Your task to perform on an android device: Clear the cart on bestbuy. Image 0: 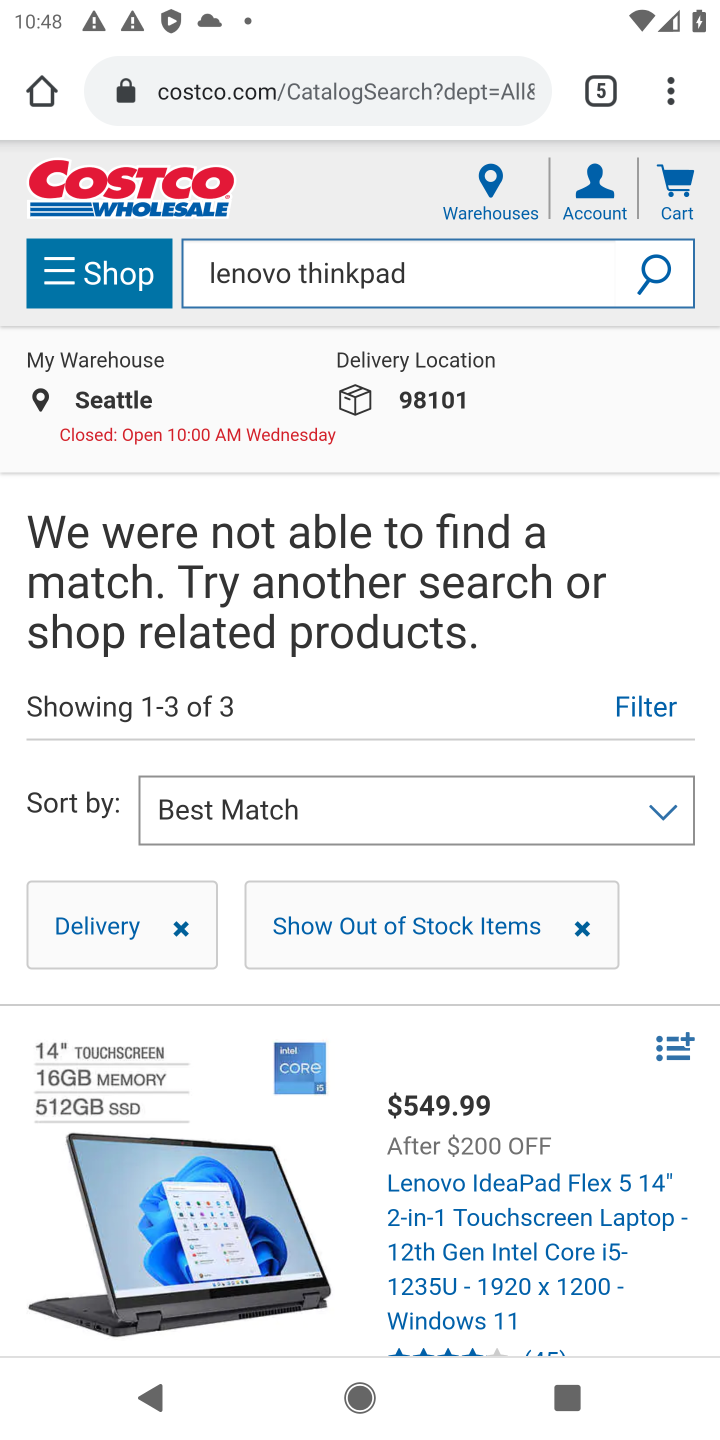
Step 0: click (603, 96)
Your task to perform on an android device: Clear the cart on bestbuy. Image 1: 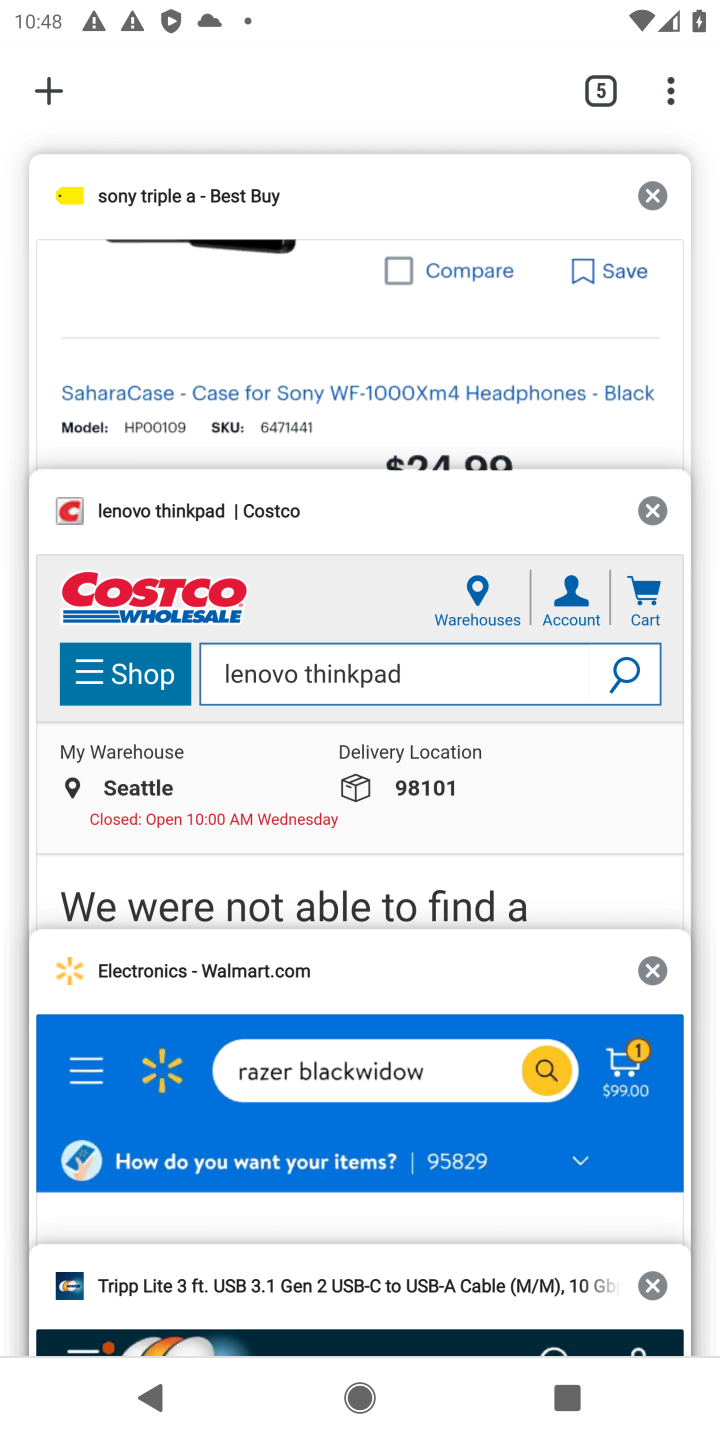
Step 1: click (364, 262)
Your task to perform on an android device: Clear the cart on bestbuy. Image 2: 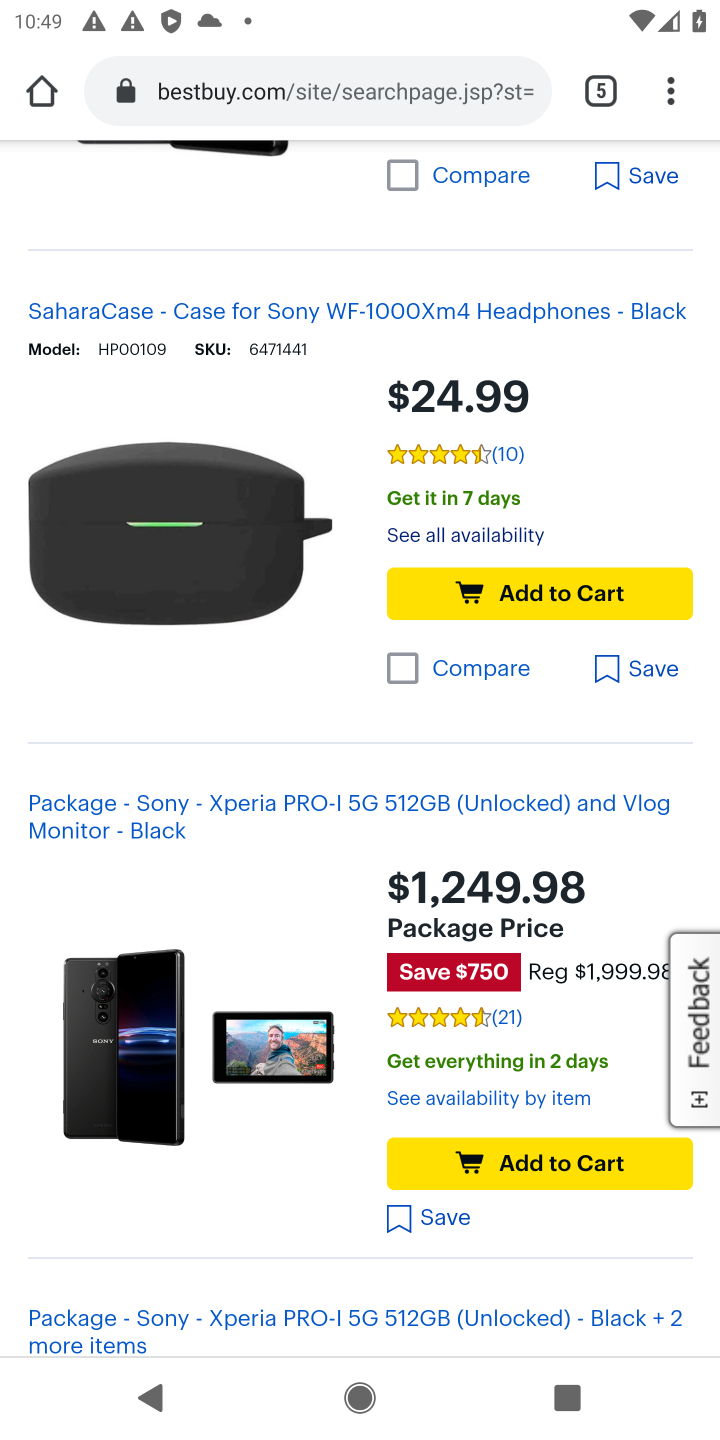
Step 2: drag from (325, 264) to (146, 1435)
Your task to perform on an android device: Clear the cart on bestbuy. Image 3: 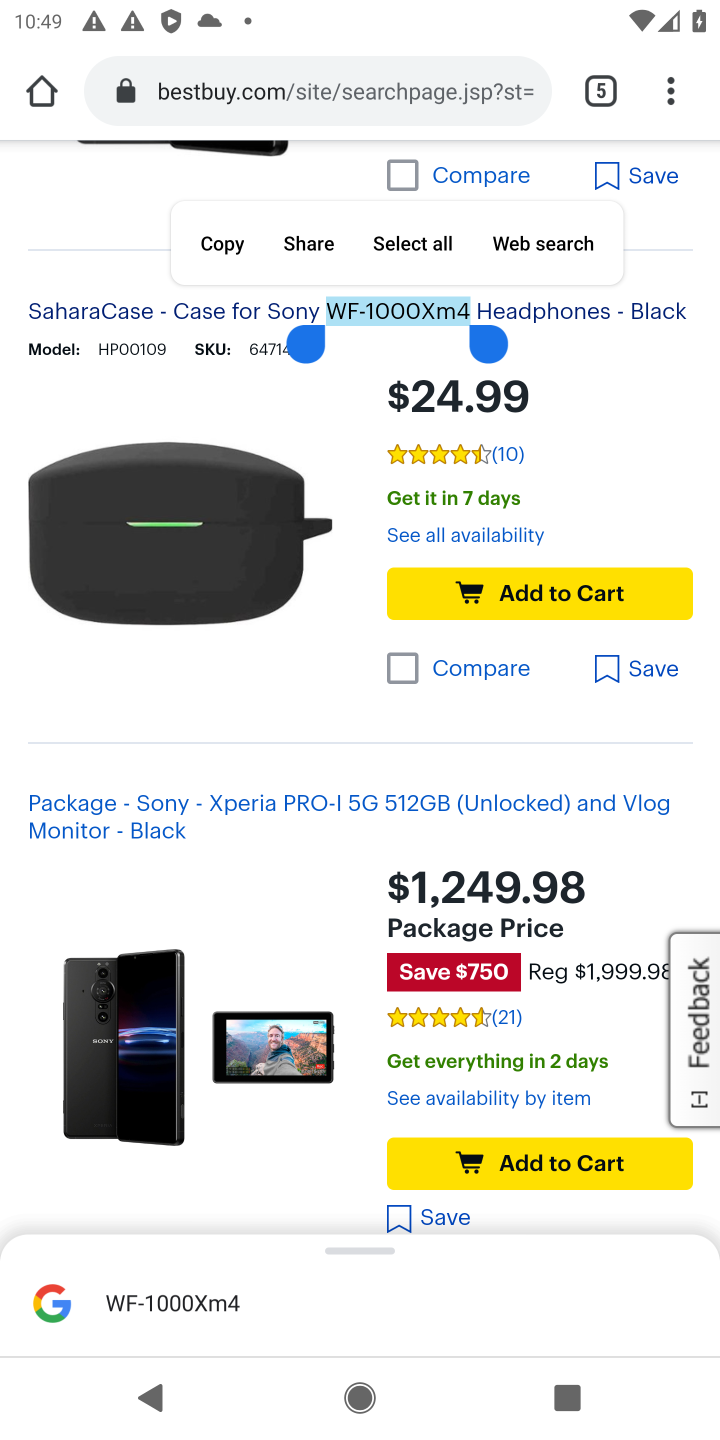
Step 3: drag from (206, 199) to (271, 1313)
Your task to perform on an android device: Clear the cart on bestbuy. Image 4: 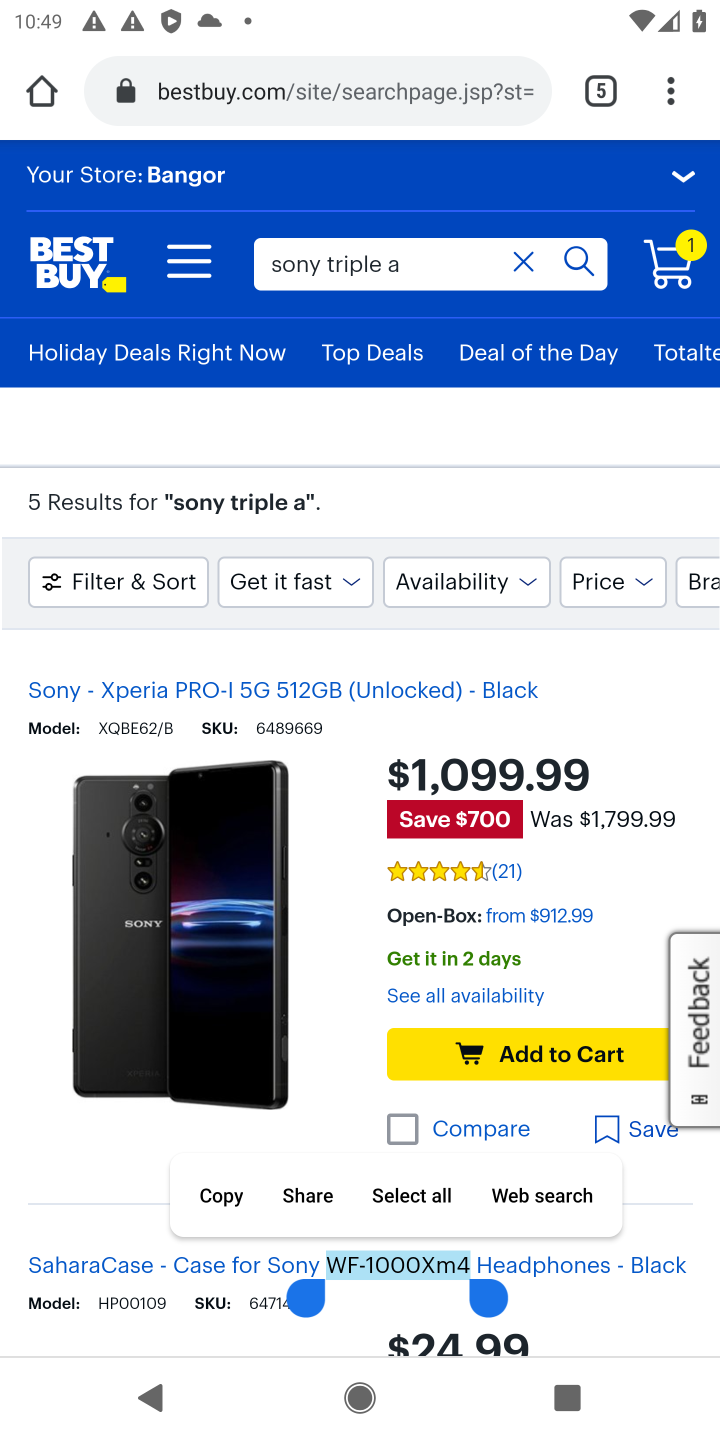
Step 4: click (680, 262)
Your task to perform on an android device: Clear the cart on bestbuy. Image 5: 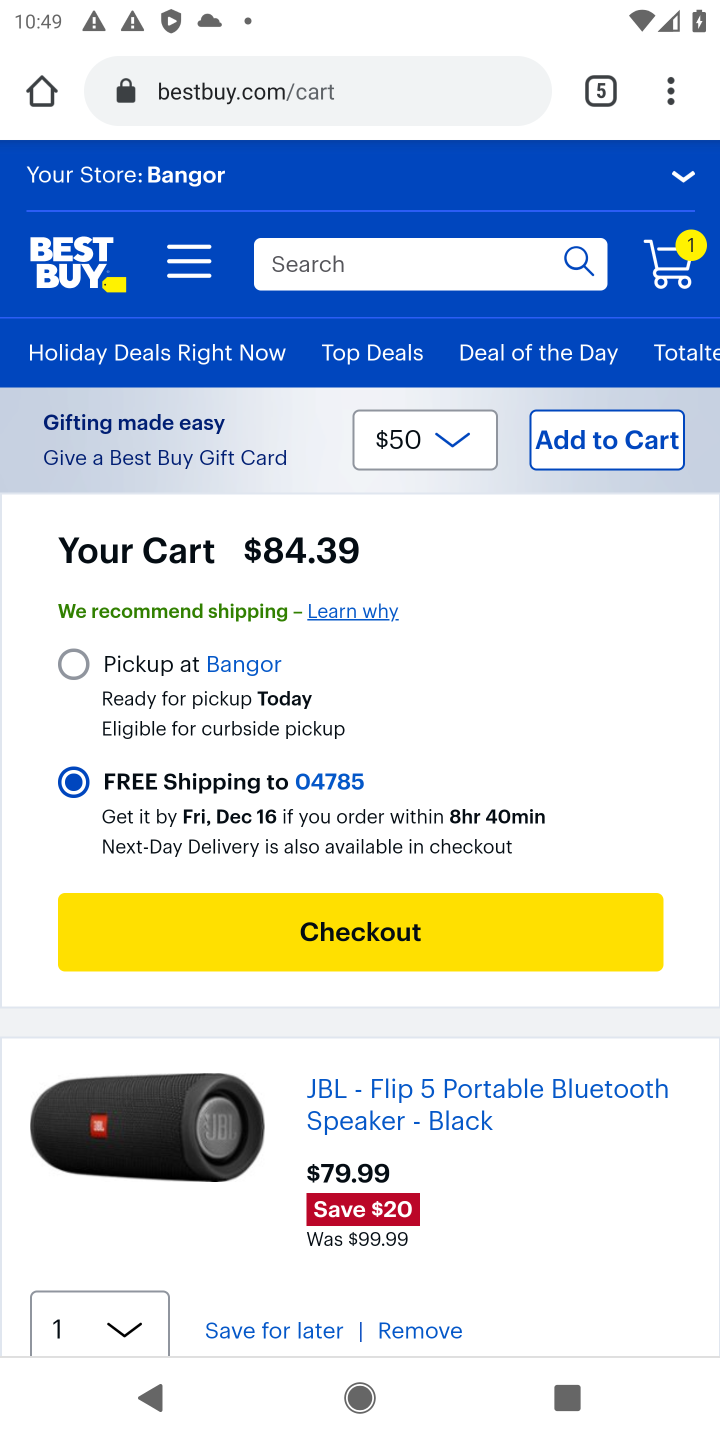
Step 5: click (429, 1329)
Your task to perform on an android device: Clear the cart on bestbuy. Image 6: 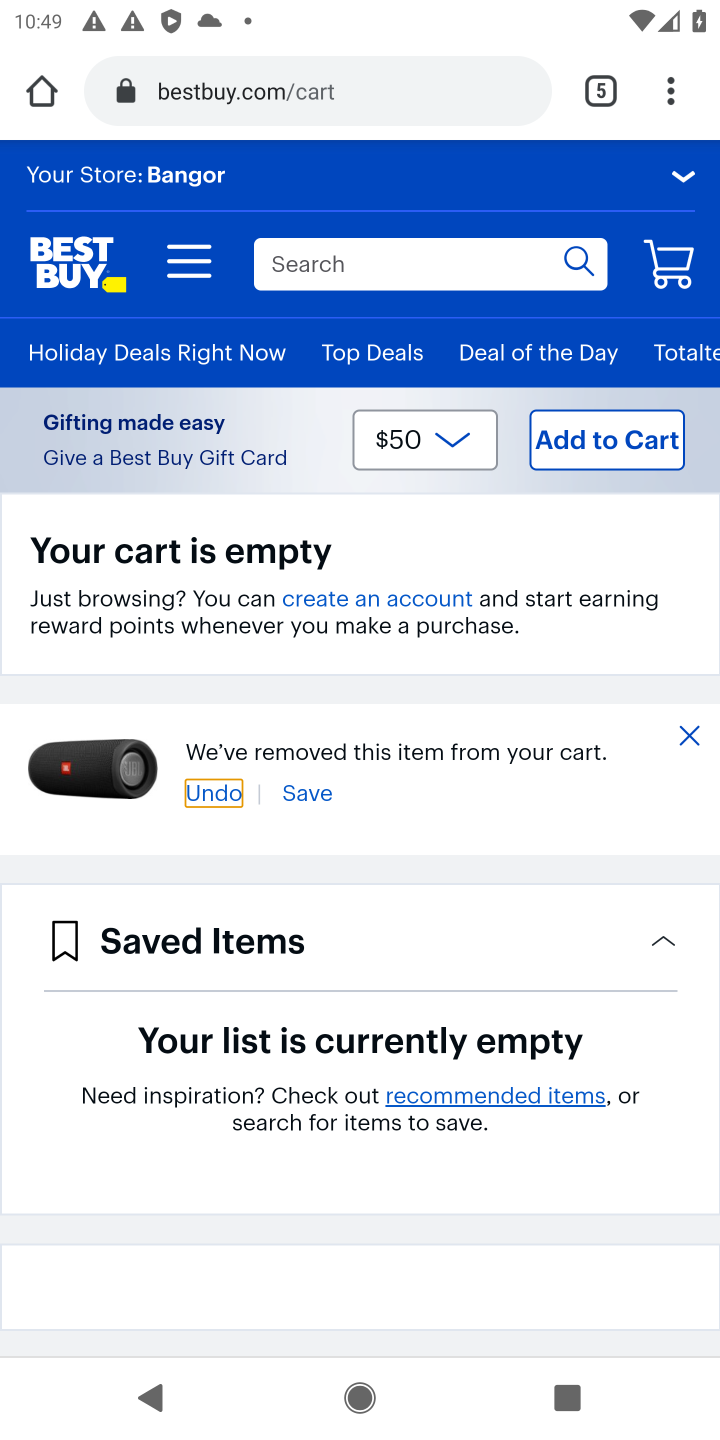
Step 6: task complete